Your task to perform on an android device: Search for vegetarian restaurants on Maps Image 0: 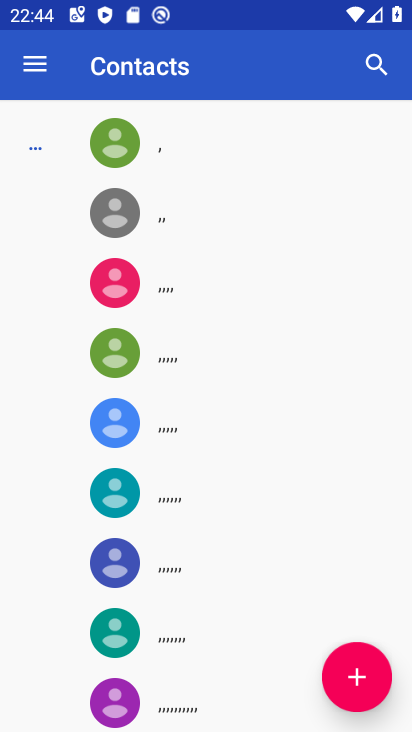
Step 0: press home button
Your task to perform on an android device: Search for vegetarian restaurants on Maps Image 1: 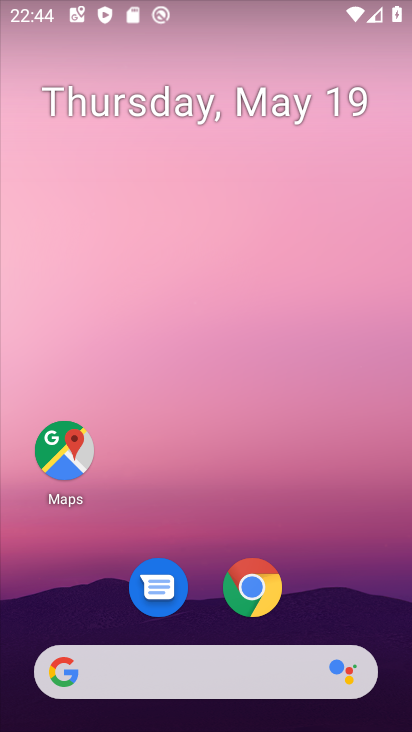
Step 1: drag from (202, 713) to (164, 188)
Your task to perform on an android device: Search for vegetarian restaurants on Maps Image 2: 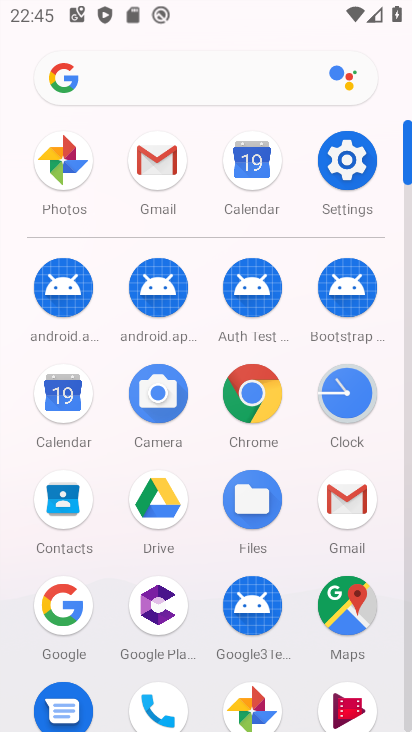
Step 2: click (327, 615)
Your task to perform on an android device: Search for vegetarian restaurants on Maps Image 3: 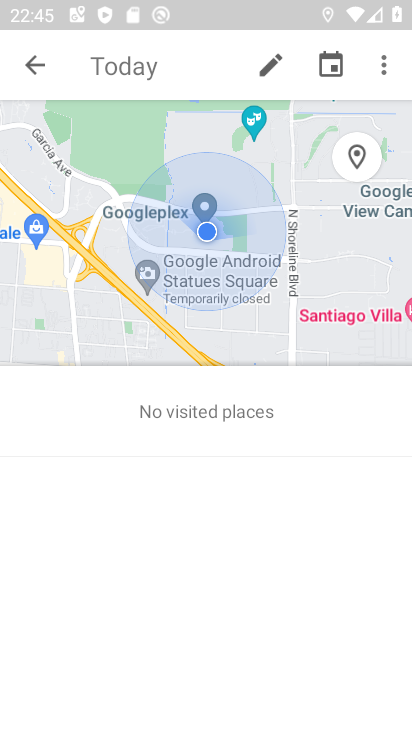
Step 3: click (31, 75)
Your task to perform on an android device: Search for vegetarian restaurants on Maps Image 4: 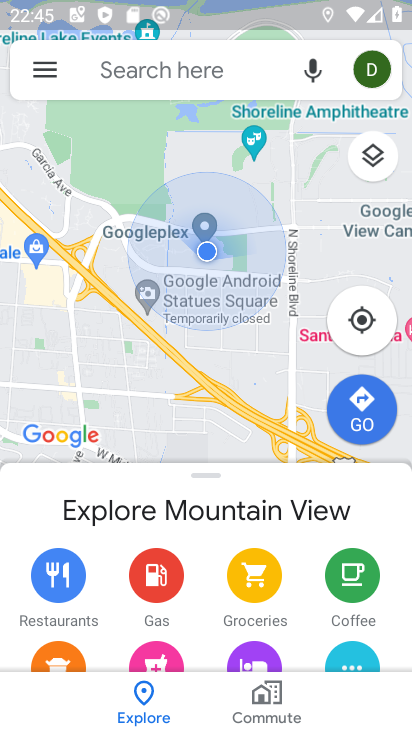
Step 4: click (236, 83)
Your task to perform on an android device: Search for vegetarian restaurants on Maps Image 5: 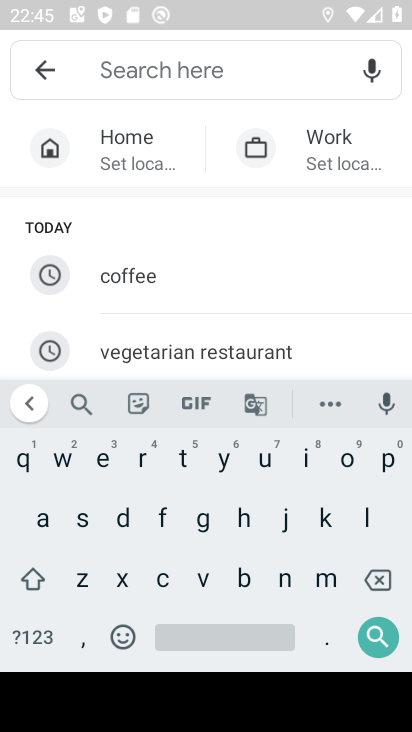
Step 5: click (205, 356)
Your task to perform on an android device: Search for vegetarian restaurants on Maps Image 6: 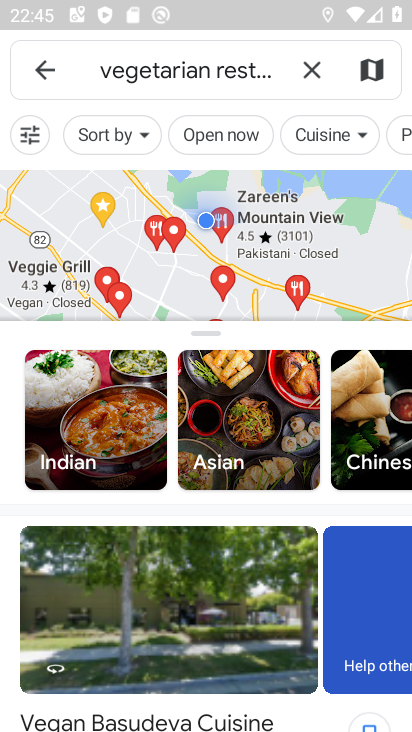
Step 6: task complete